Your task to perform on an android device: Open Chrome and go to the settings page Image 0: 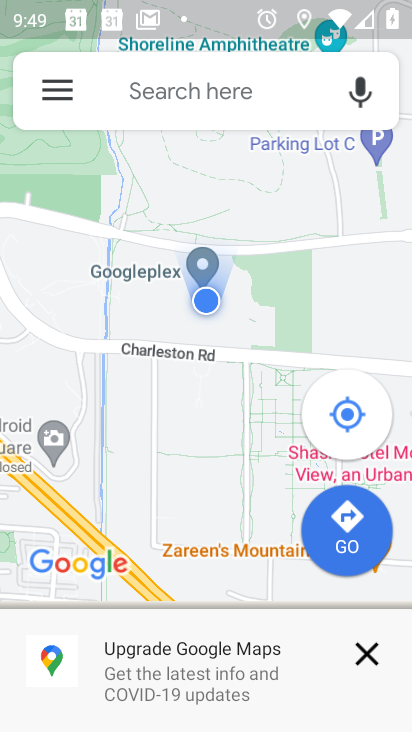
Step 0: press home button
Your task to perform on an android device: Open Chrome and go to the settings page Image 1: 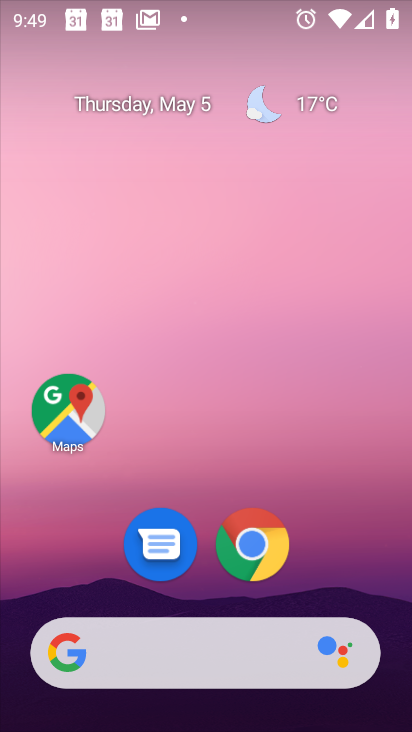
Step 1: click (263, 527)
Your task to perform on an android device: Open Chrome and go to the settings page Image 2: 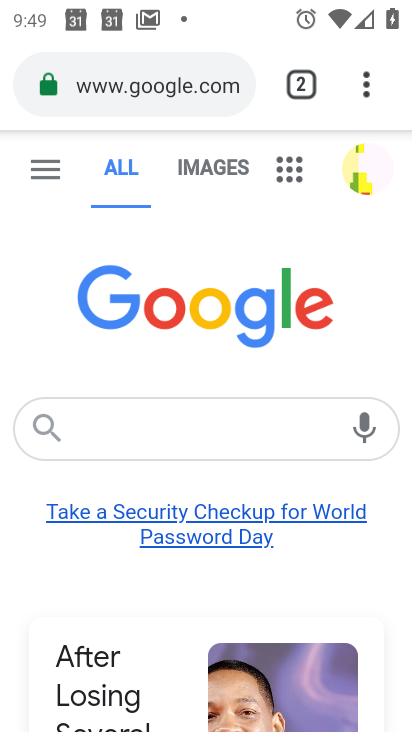
Step 2: click (373, 87)
Your task to perform on an android device: Open Chrome and go to the settings page Image 3: 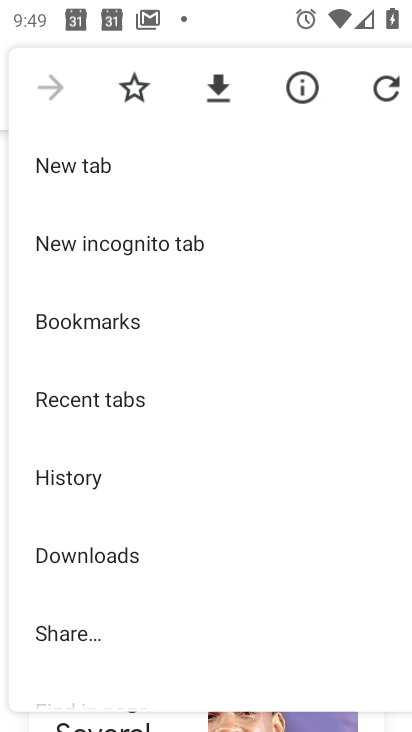
Step 3: drag from (161, 577) to (178, 318)
Your task to perform on an android device: Open Chrome and go to the settings page Image 4: 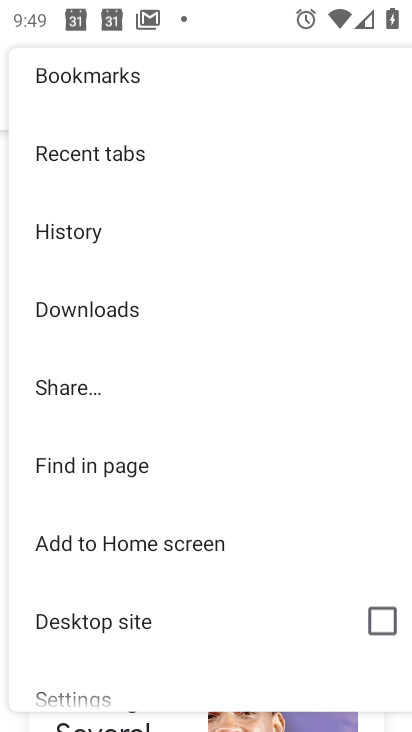
Step 4: click (189, 683)
Your task to perform on an android device: Open Chrome and go to the settings page Image 5: 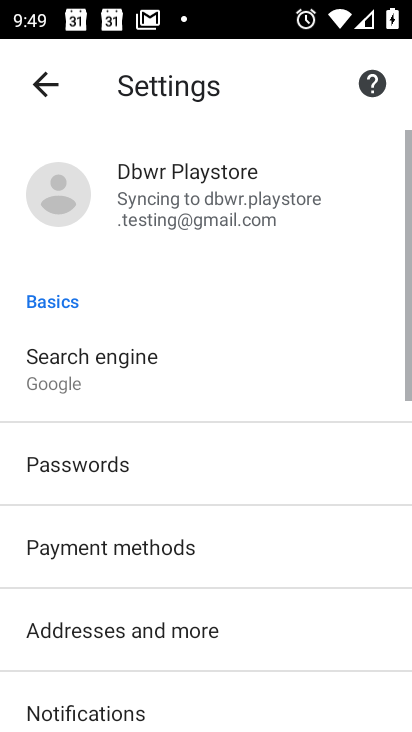
Step 5: task complete